Your task to perform on an android device: stop showing notifications on the lock screen Image 0: 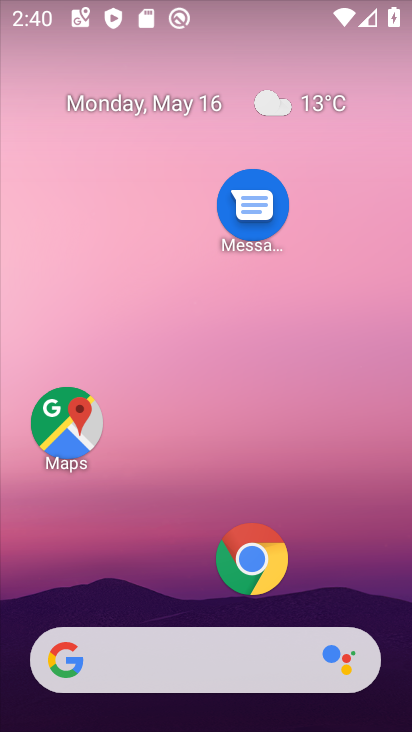
Step 0: drag from (154, 543) to (158, 198)
Your task to perform on an android device: stop showing notifications on the lock screen Image 1: 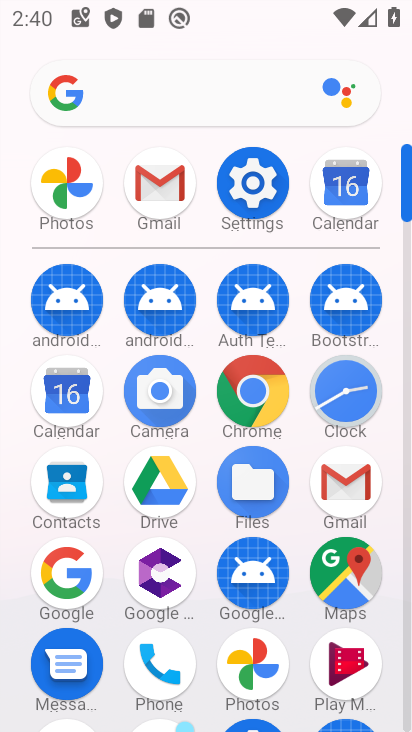
Step 1: click (255, 186)
Your task to perform on an android device: stop showing notifications on the lock screen Image 2: 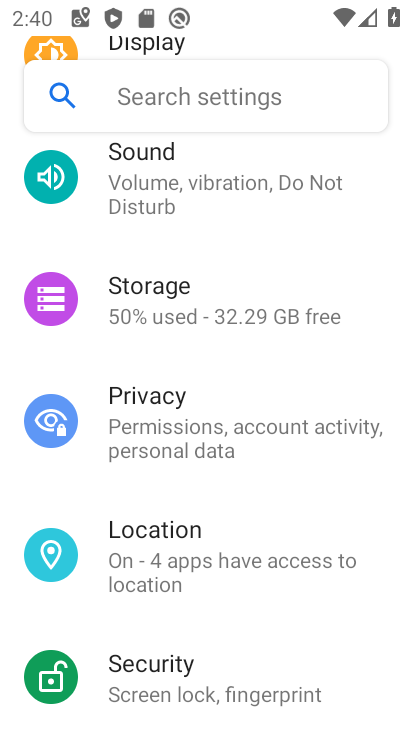
Step 2: drag from (215, 642) to (215, 599)
Your task to perform on an android device: stop showing notifications on the lock screen Image 3: 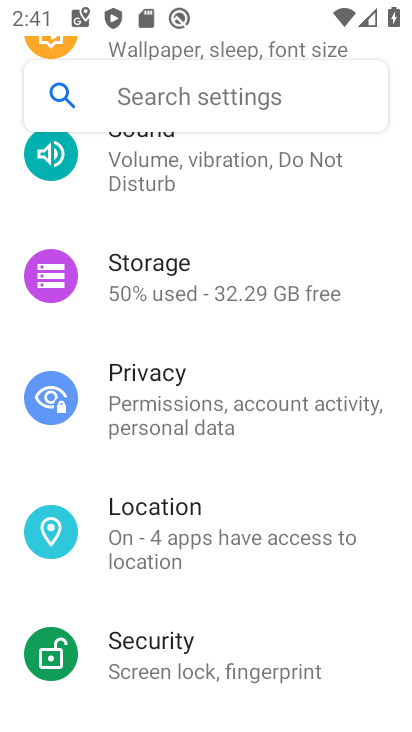
Step 3: drag from (197, 218) to (244, 596)
Your task to perform on an android device: stop showing notifications on the lock screen Image 4: 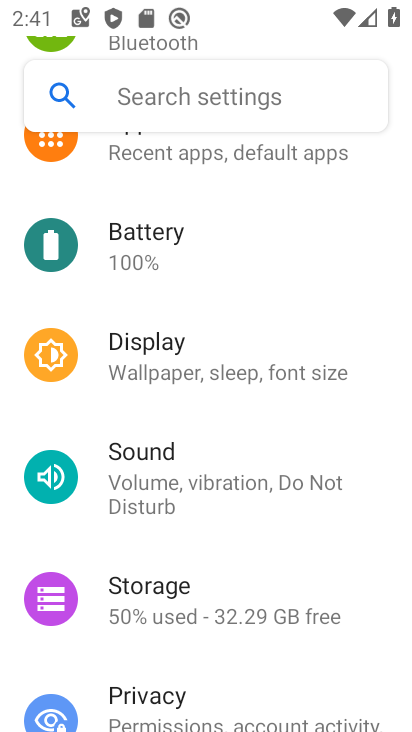
Step 4: drag from (244, 241) to (239, 571)
Your task to perform on an android device: stop showing notifications on the lock screen Image 5: 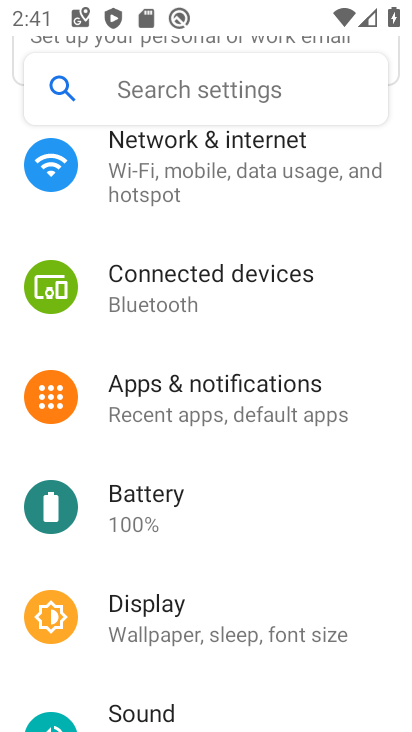
Step 5: click (208, 385)
Your task to perform on an android device: stop showing notifications on the lock screen Image 6: 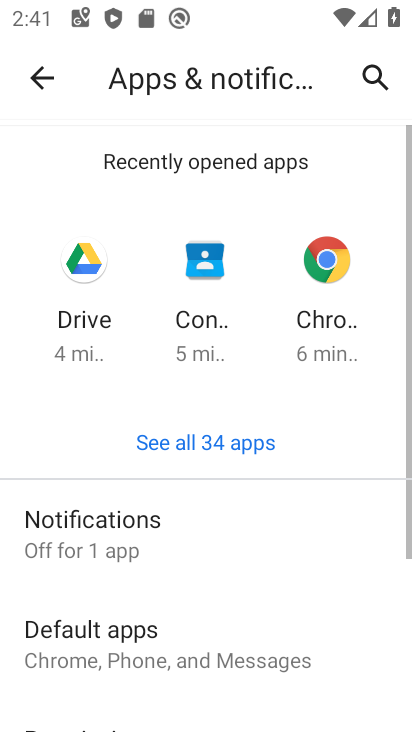
Step 6: drag from (191, 505) to (180, 207)
Your task to perform on an android device: stop showing notifications on the lock screen Image 7: 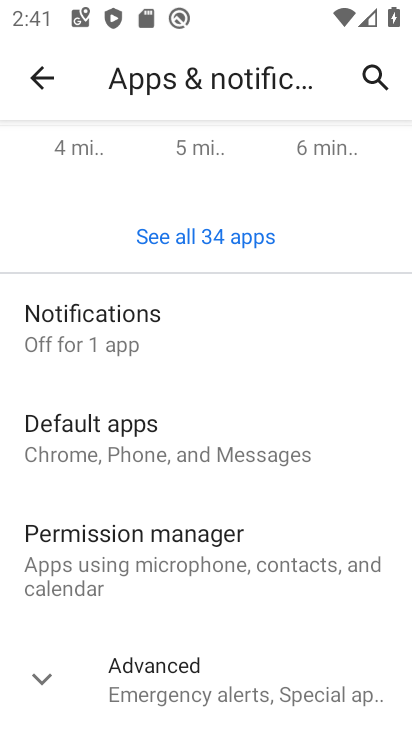
Step 7: drag from (106, 675) to (106, 572)
Your task to perform on an android device: stop showing notifications on the lock screen Image 8: 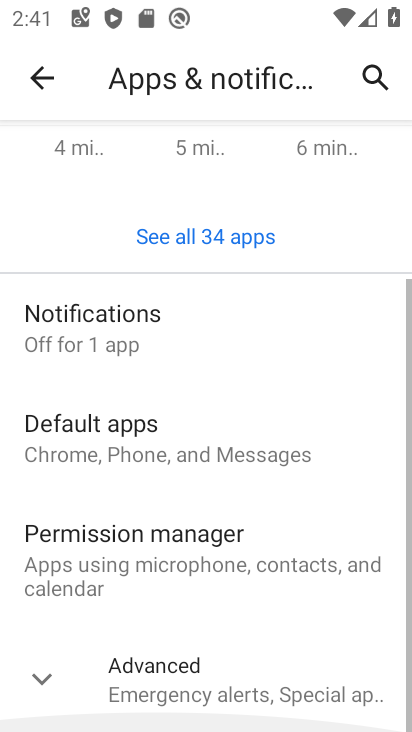
Step 8: click (98, 336)
Your task to perform on an android device: stop showing notifications on the lock screen Image 9: 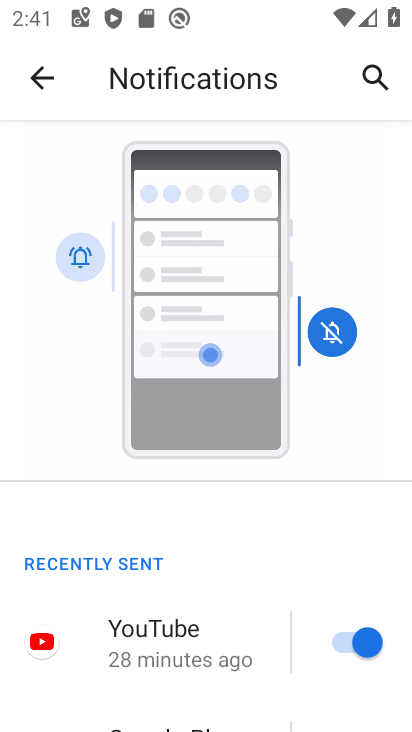
Step 9: drag from (145, 661) to (166, 259)
Your task to perform on an android device: stop showing notifications on the lock screen Image 10: 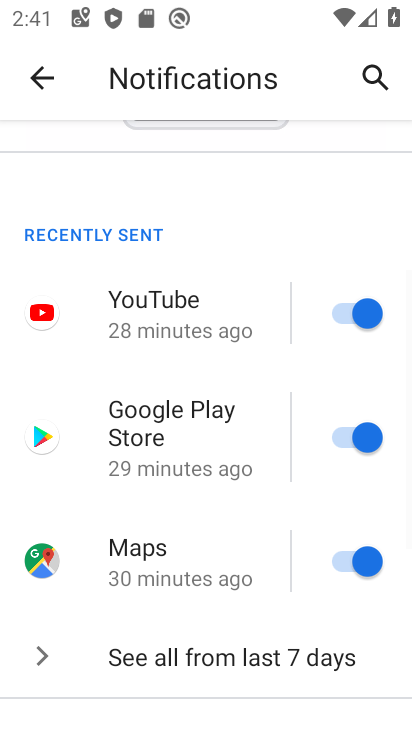
Step 10: drag from (175, 651) to (179, 348)
Your task to perform on an android device: stop showing notifications on the lock screen Image 11: 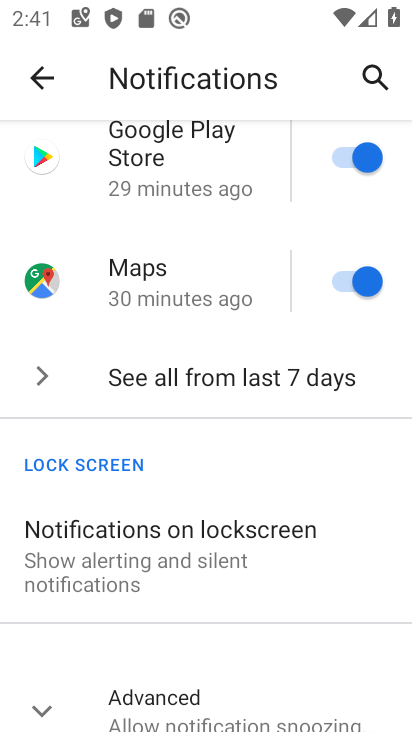
Step 11: click (84, 574)
Your task to perform on an android device: stop showing notifications on the lock screen Image 12: 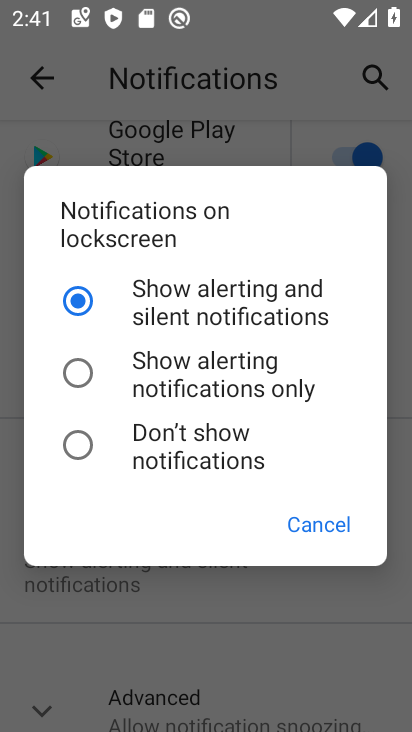
Step 12: click (169, 458)
Your task to perform on an android device: stop showing notifications on the lock screen Image 13: 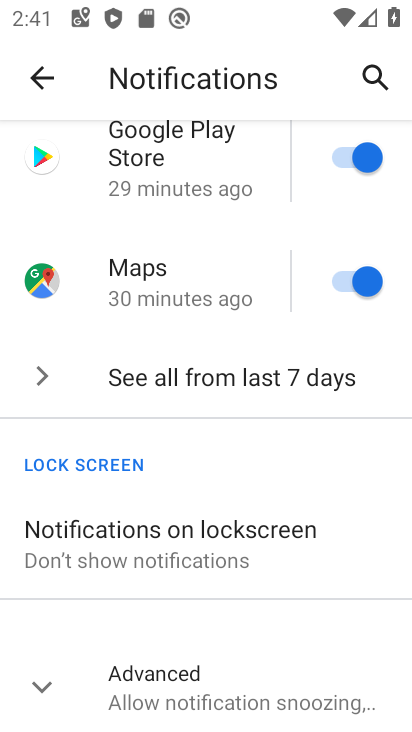
Step 13: task complete